Your task to perform on an android device: add a label to a message in the gmail app Image 0: 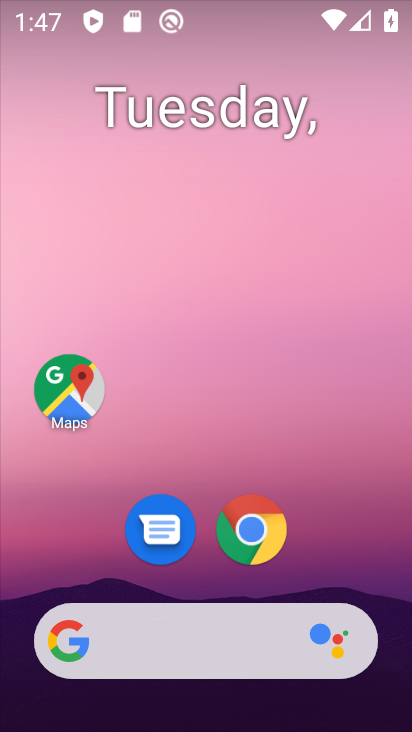
Step 0: drag from (394, 592) to (257, 22)
Your task to perform on an android device: add a label to a message in the gmail app Image 1: 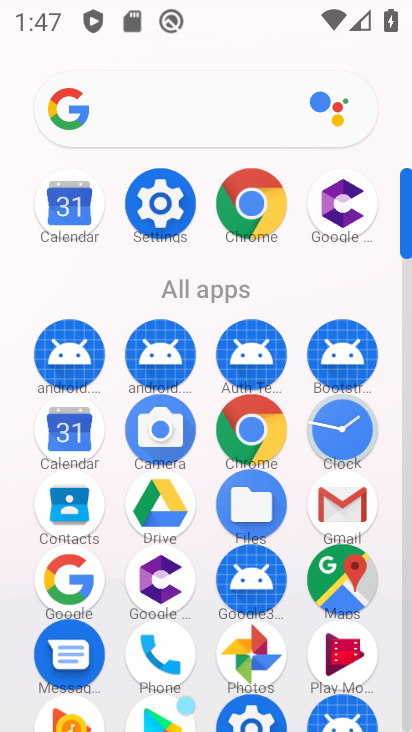
Step 1: click (347, 511)
Your task to perform on an android device: add a label to a message in the gmail app Image 2: 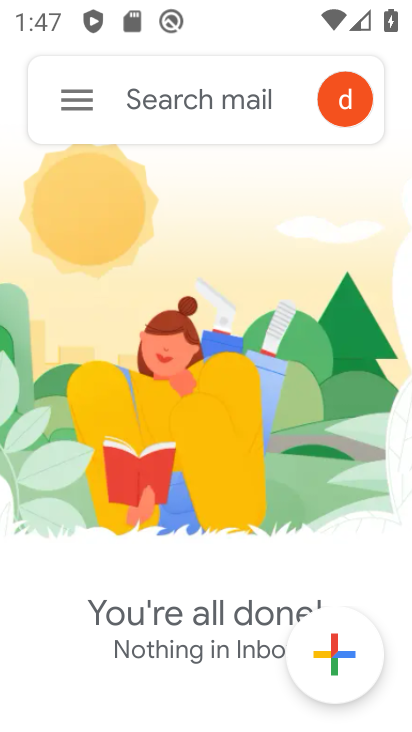
Step 2: task complete